Your task to perform on an android device: toggle notifications settings in the gmail app Image 0: 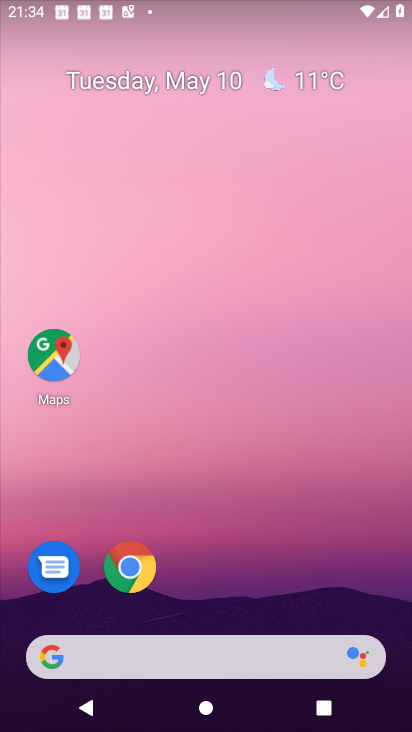
Step 0: drag from (186, 634) to (203, 211)
Your task to perform on an android device: toggle notifications settings in the gmail app Image 1: 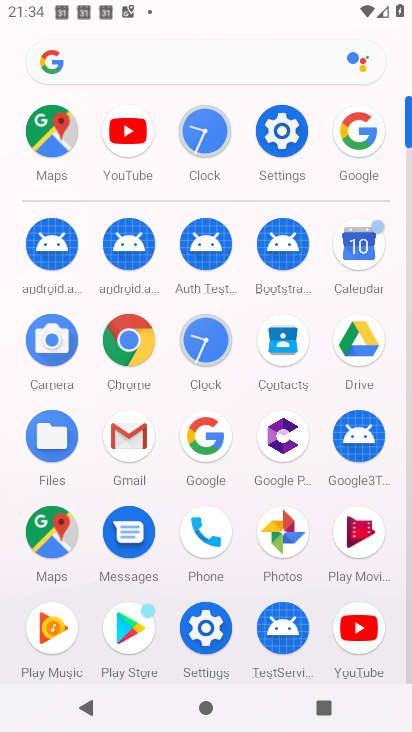
Step 1: click (138, 426)
Your task to perform on an android device: toggle notifications settings in the gmail app Image 2: 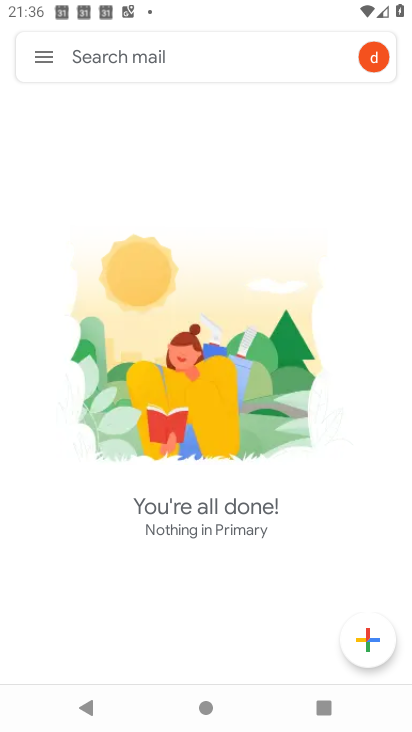
Step 2: click (55, 55)
Your task to perform on an android device: toggle notifications settings in the gmail app Image 3: 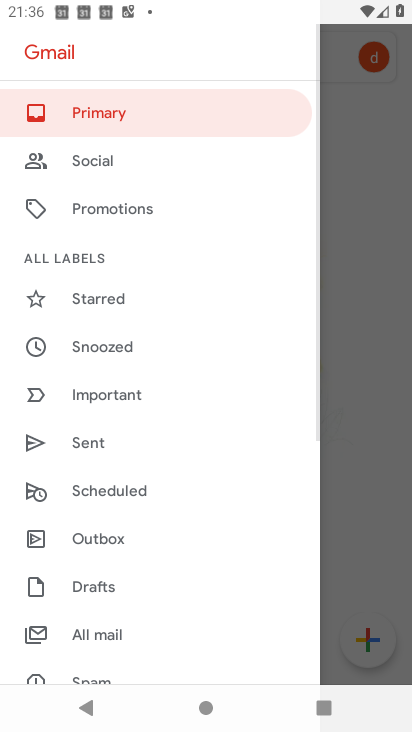
Step 3: drag from (121, 657) to (129, 305)
Your task to perform on an android device: toggle notifications settings in the gmail app Image 4: 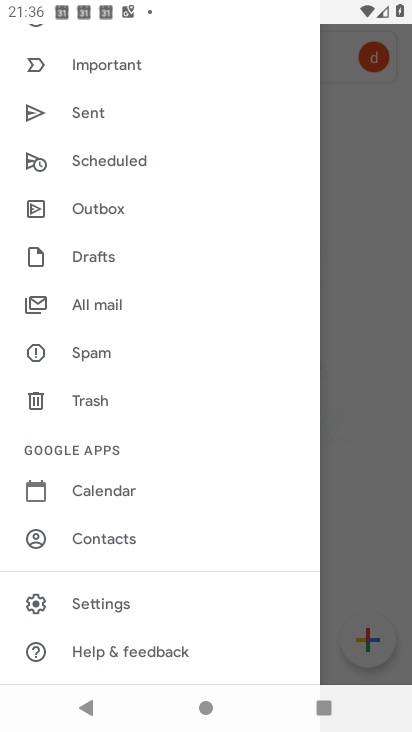
Step 4: click (111, 614)
Your task to perform on an android device: toggle notifications settings in the gmail app Image 5: 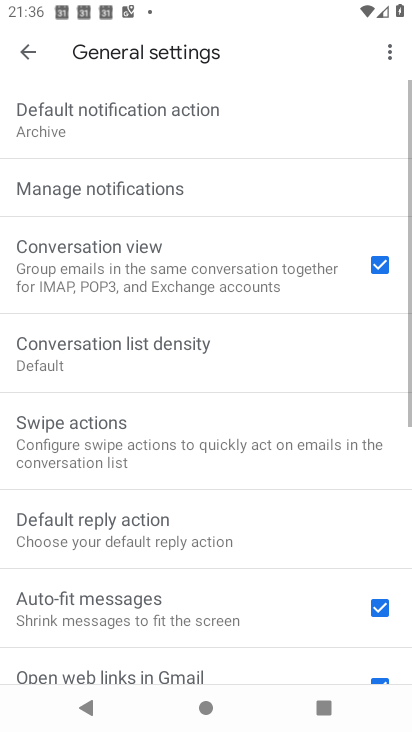
Step 5: drag from (125, 652) to (155, 322)
Your task to perform on an android device: toggle notifications settings in the gmail app Image 6: 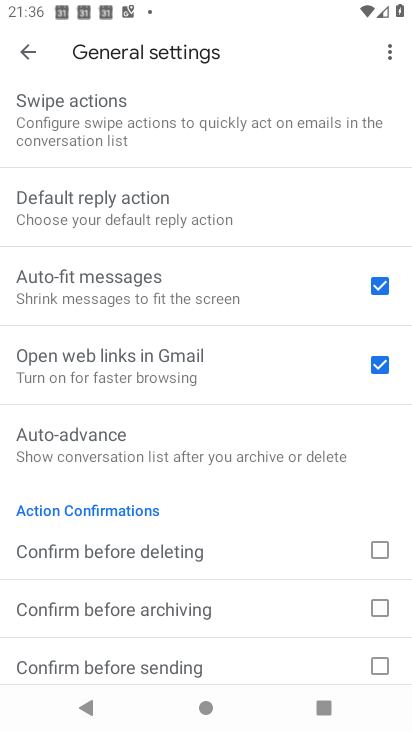
Step 6: drag from (89, 115) to (92, 482)
Your task to perform on an android device: toggle notifications settings in the gmail app Image 7: 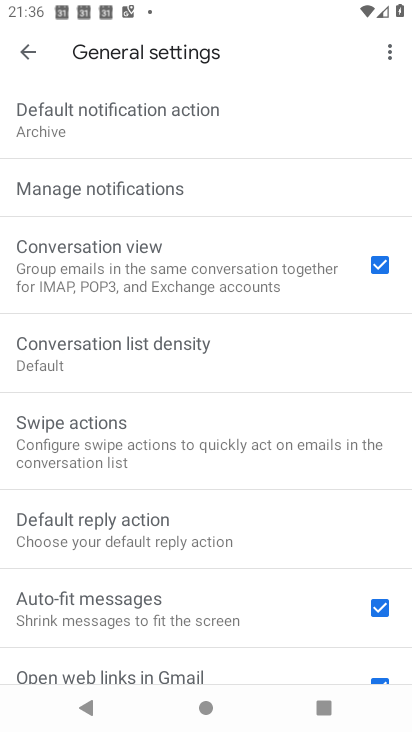
Step 7: click (64, 193)
Your task to perform on an android device: toggle notifications settings in the gmail app Image 8: 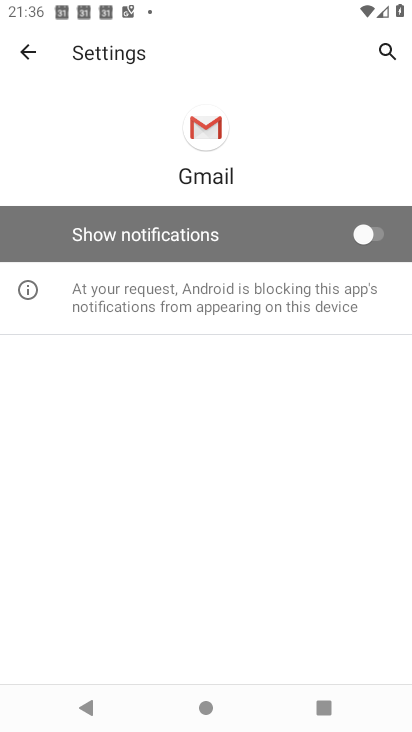
Step 8: click (382, 233)
Your task to perform on an android device: toggle notifications settings in the gmail app Image 9: 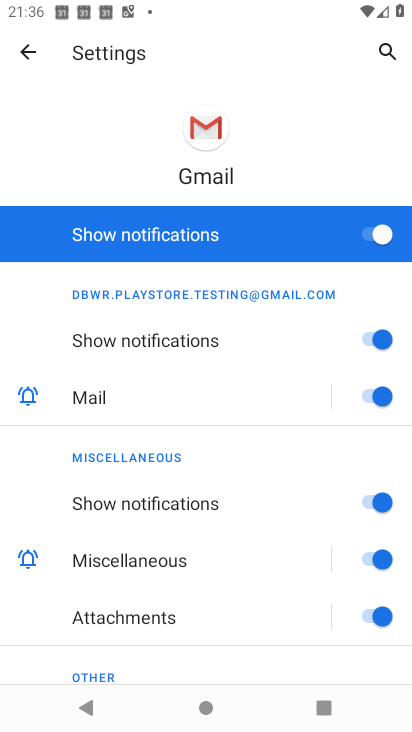
Step 9: task complete